Your task to perform on an android device: change timer sound Image 0: 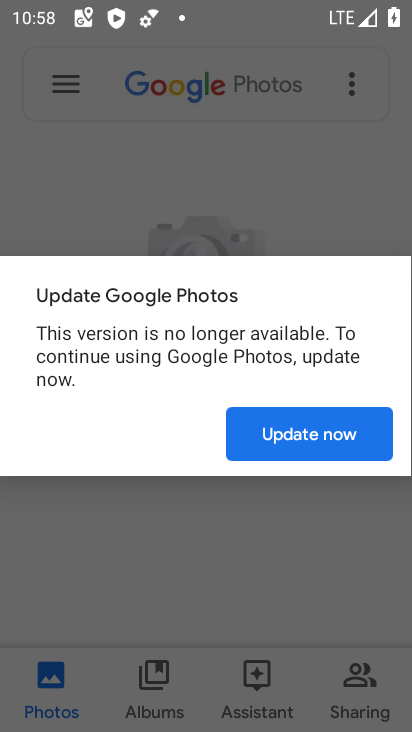
Step 0: press back button
Your task to perform on an android device: change timer sound Image 1: 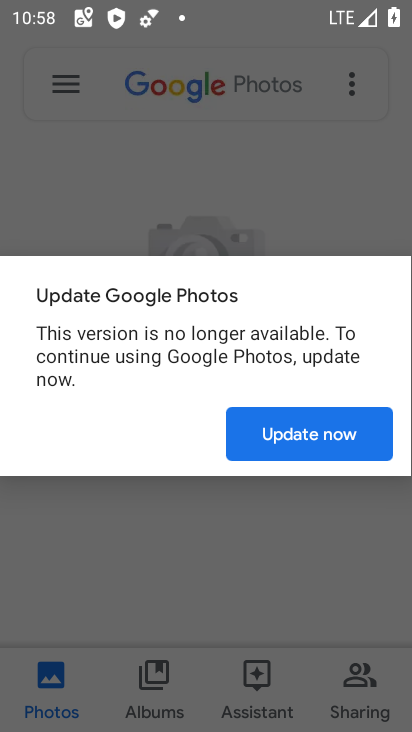
Step 1: press back button
Your task to perform on an android device: change timer sound Image 2: 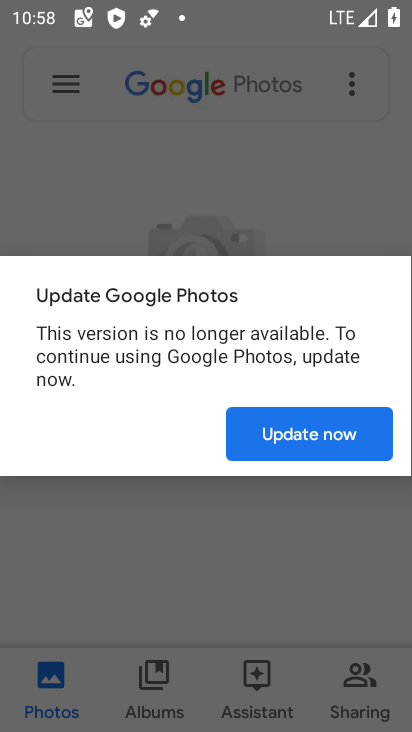
Step 2: press home button
Your task to perform on an android device: change timer sound Image 3: 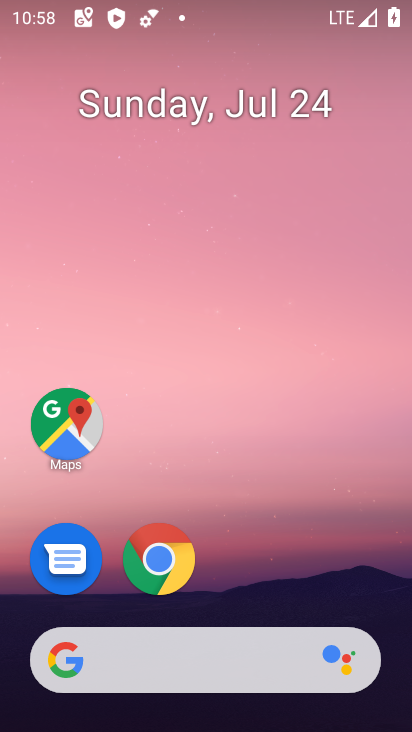
Step 3: drag from (257, 604) to (330, 14)
Your task to perform on an android device: change timer sound Image 4: 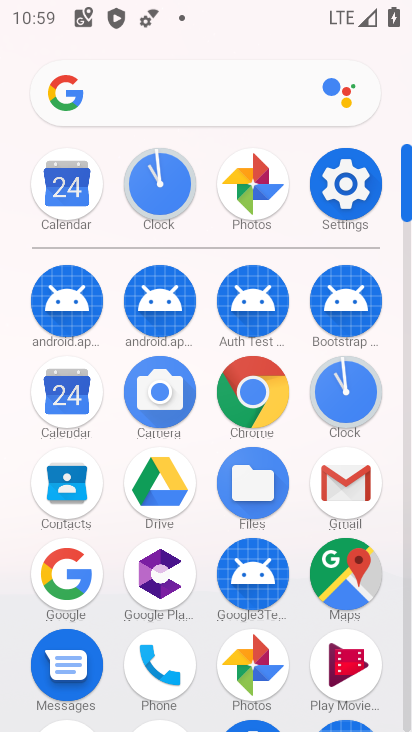
Step 4: click (347, 396)
Your task to perform on an android device: change timer sound Image 5: 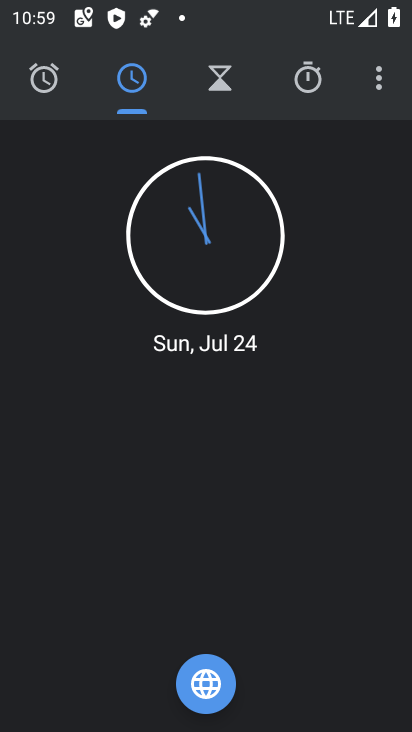
Step 5: click (383, 87)
Your task to perform on an android device: change timer sound Image 6: 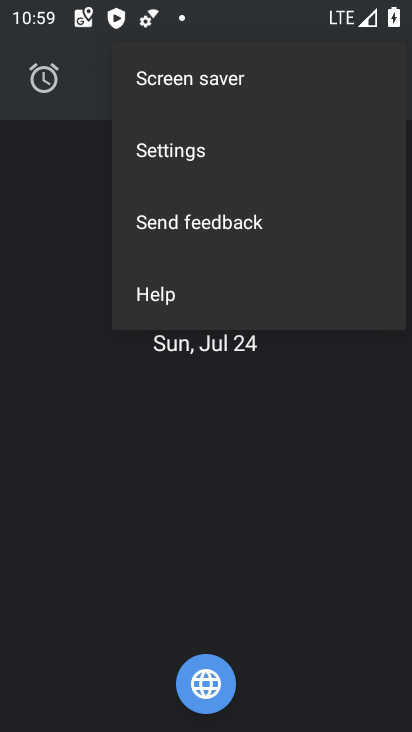
Step 6: click (184, 152)
Your task to perform on an android device: change timer sound Image 7: 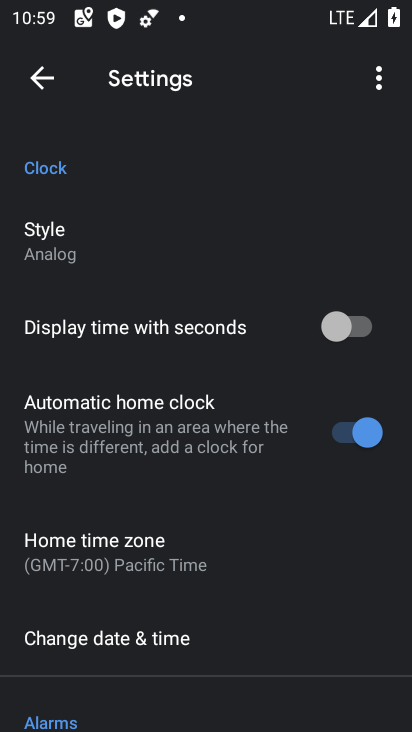
Step 7: drag from (178, 629) to (263, 46)
Your task to perform on an android device: change timer sound Image 8: 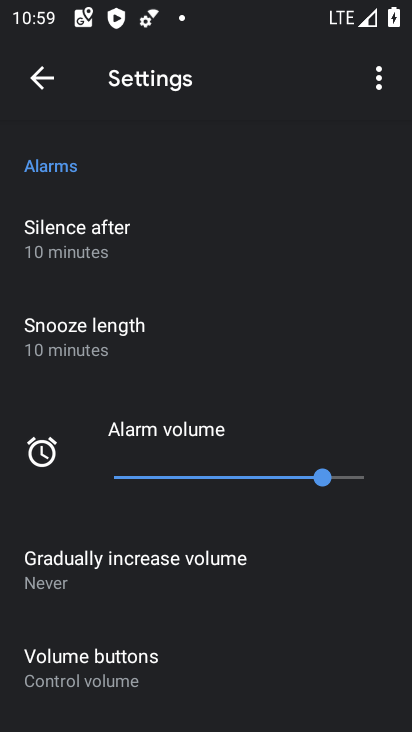
Step 8: drag from (148, 617) to (256, 101)
Your task to perform on an android device: change timer sound Image 9: 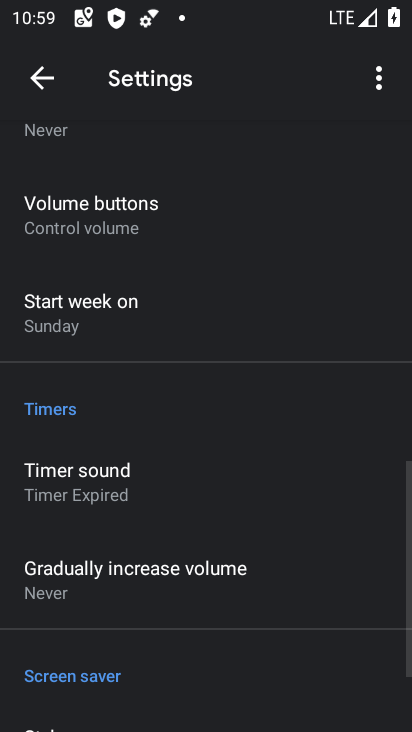
Step 9: drag from (183, 658) to (345, 114)
Your task to perform on an android device: change timer sound Image 10: 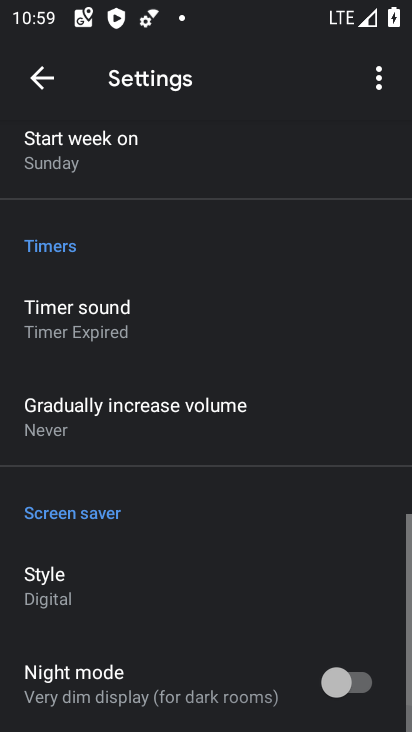
Step 10: drag from (309, 183) to (176, 706)
Your task to perform on an android device: change timer sound Image 11: 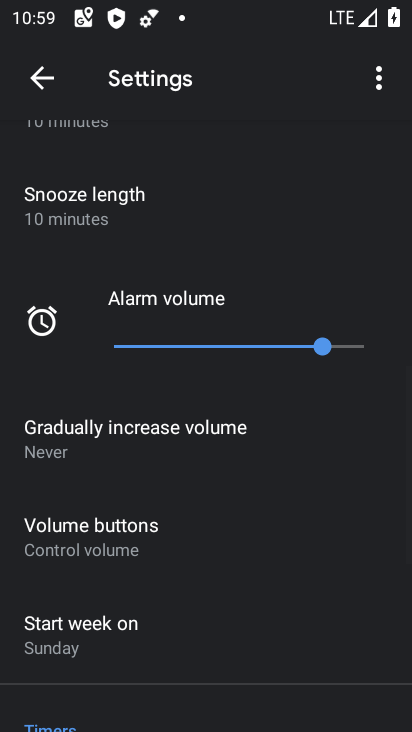
Step 11: drag from (199, 259) to (252, 220)
Your task to perform on an android device: change timer sound Image 12: 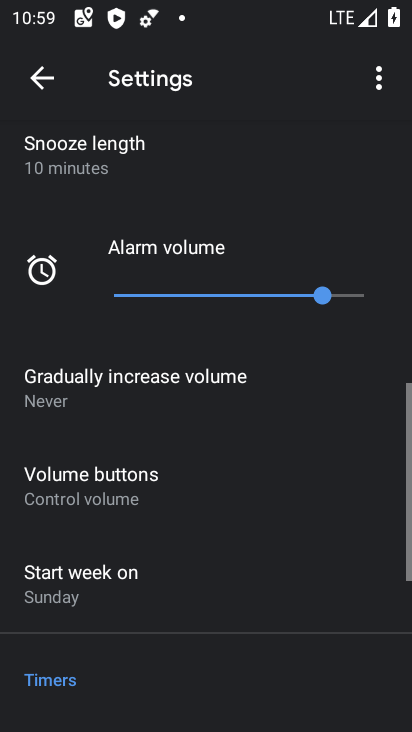
Step 12: drag from (179, 607) to (273, 215)
Your task to perform on an android device: change timer sound Image 13: 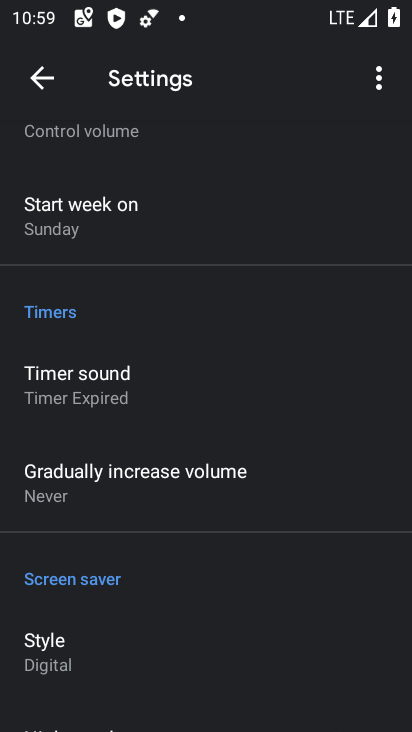
Step 13: click (78, 371)
Your task to perform on an android device: change timer sound Image 14: 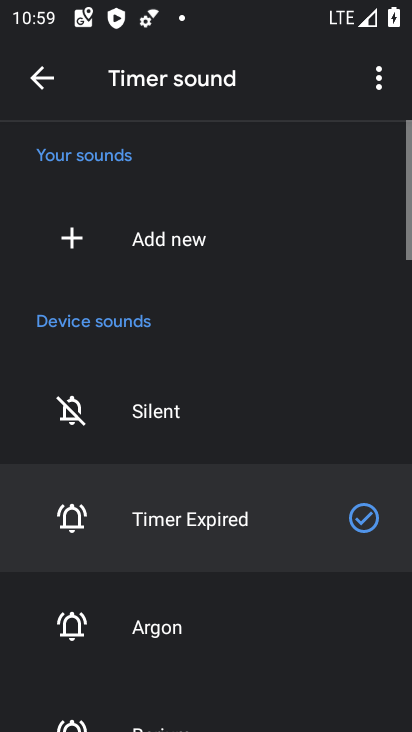
Step 14: click (173, 623)
Your task to perform on an android device: change timer sound Image 15: 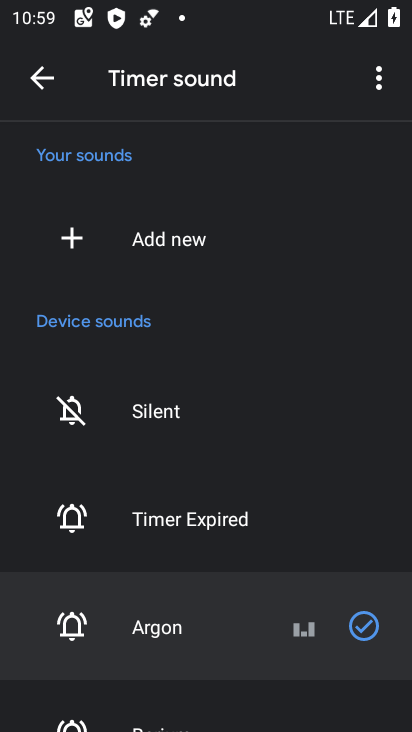
Step 15: task complete